Your task to perform on an android device: Open the calendar and show me this week's events? Image 0: 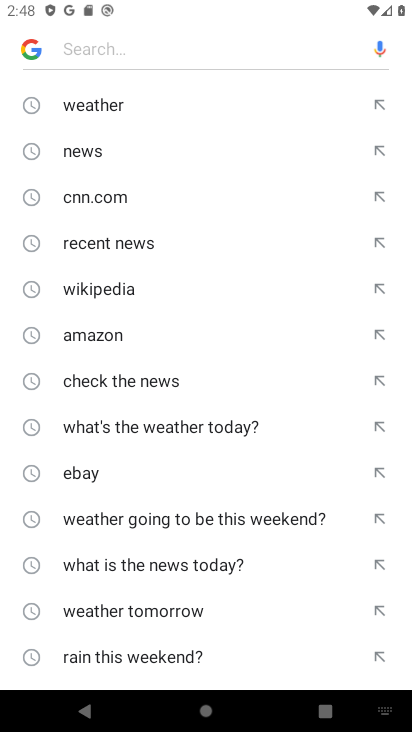
Step 0: press home button
Your task to perform on an android device: Open the calendar and show me this week's events? Image 1: 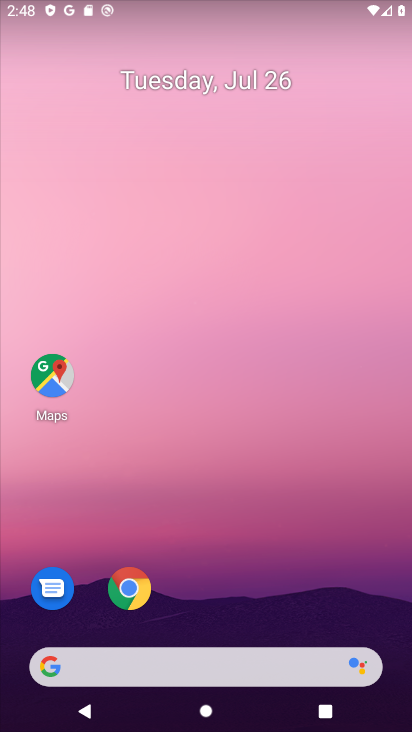
Step 1: drag from (253, 612) to (218, 150)
Your task to perform on an android device: Open the calendar and show me this week's events? Image 2: 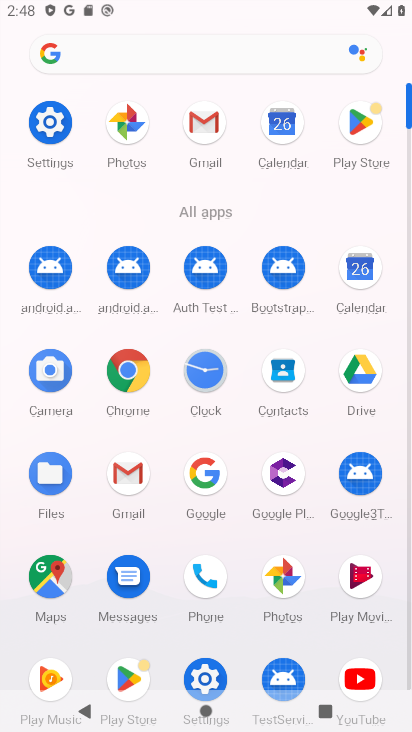
Step 2: click (356, 282)
Your task to perform on an android device: Open the calendar and show me this week's events? Image 3: 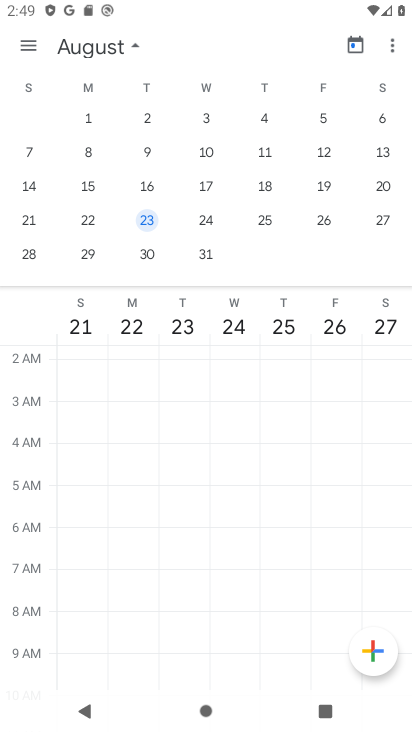
Step 3: drag from (55, 173) to (368, 116)
Your task to perform on an android device: Open the calendar and show me this week's events? Image 4: 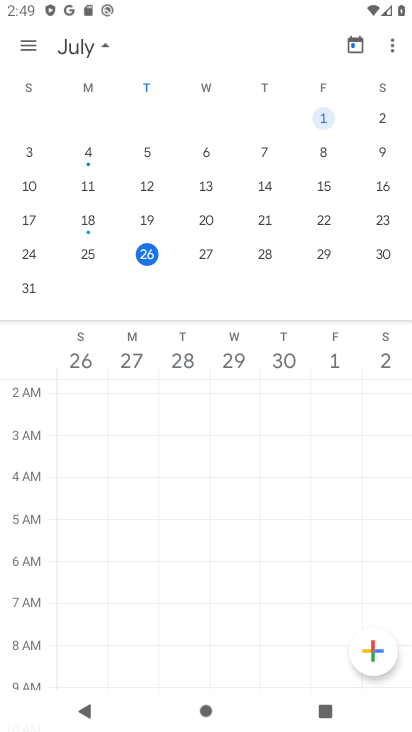
Step 4: click (26, 40)
Your task to perform on an android device: Open the calendar and show me this week's events? Image 5: 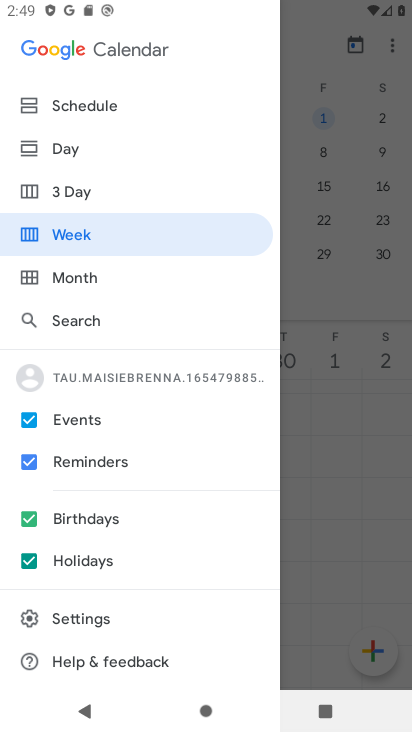
Step 5: click (25, 556)
Your task to perform on an android device: Open the calendar and show me this week's events? Image 6: 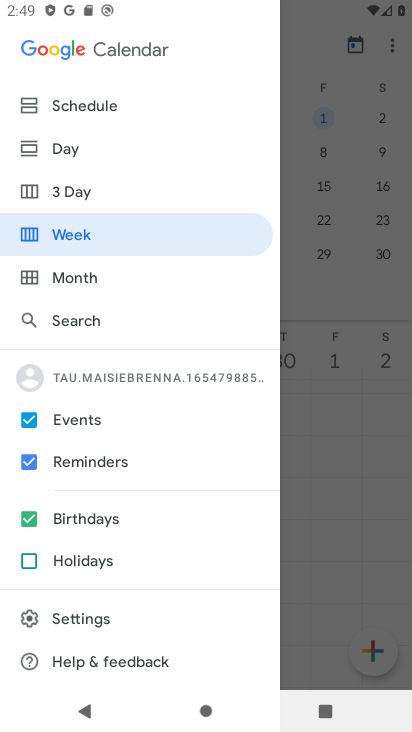
Step 6: click (32, 513)
Your task to perform on an android device: Open the calendar and show me this week's events? Image 7: 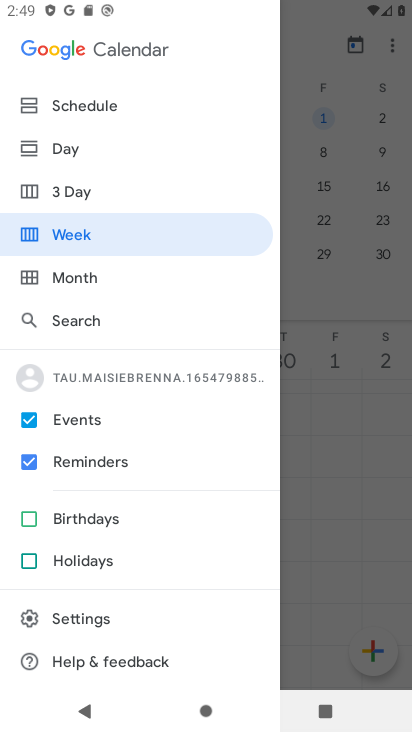
Step 7: click (29, 467)
Your task to perform on an android device: Open the calendar and show me this week's events? Image 8: 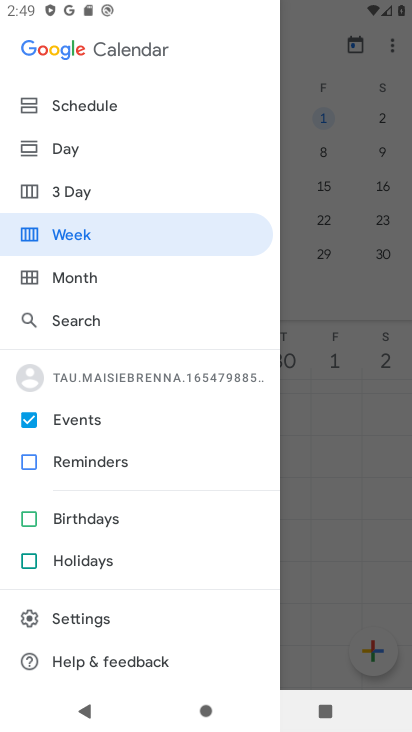
Step 8: click (114, 242)
Your task to perform on an android device: Open the calendar and show me this week's events? Image 9: 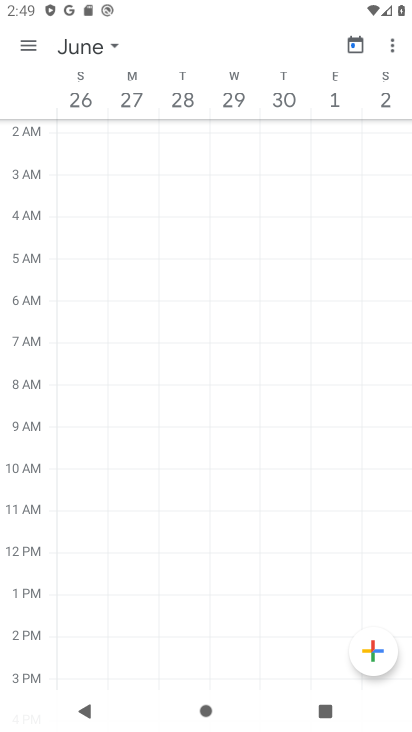
Step 9: task complete